Your task to perform on an android device: turn off sleep mode Image 0: 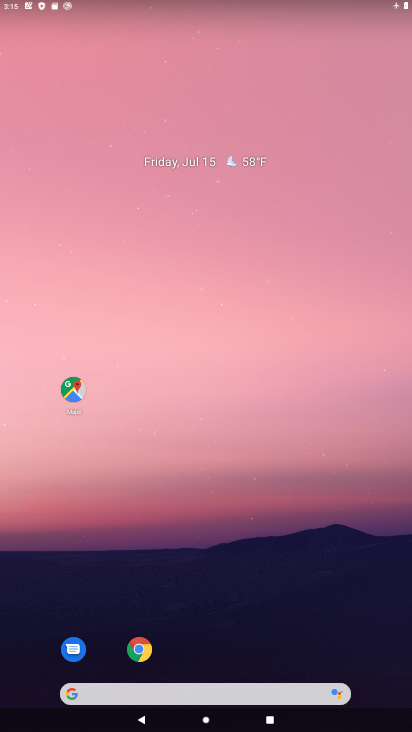
Step 0: drag from (237, 727) to (218, 124)
Your task to perform on an android device: turn off sleep mode Image 1: 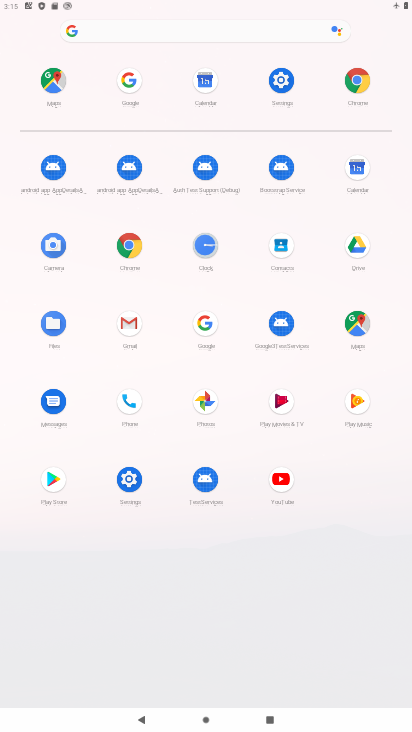
Step 1: click (282, 74)
Your task to perform on an android device: turn off sleep mode Image 2: 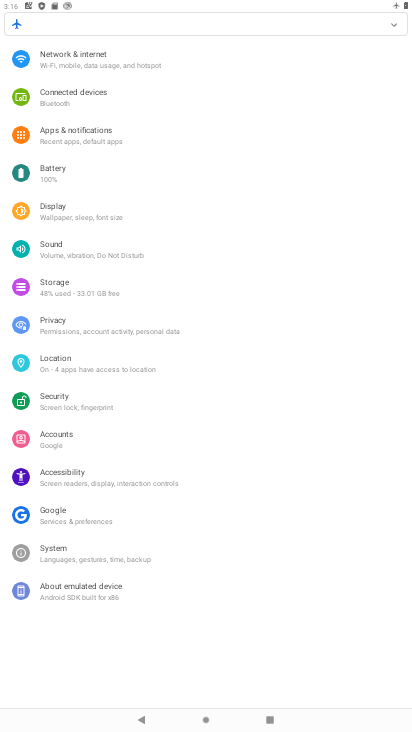
Step 2: click (82, 213)
Your task to perform on an android device: turn off sleep mode Image 3: 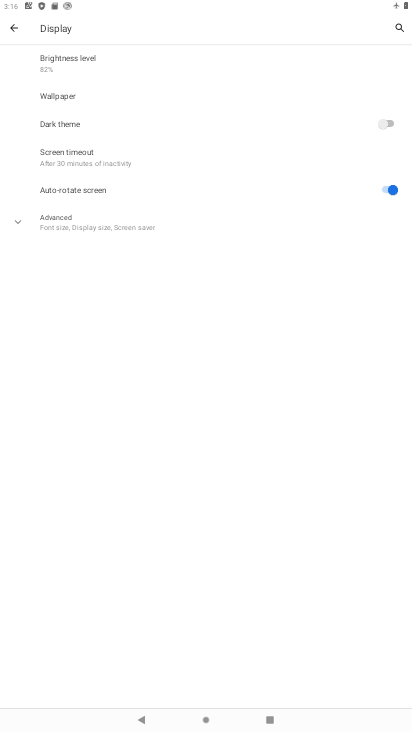
Step 3: click (11, 25)
Your task to perform on an android device: turn off sleep mode Image 4: 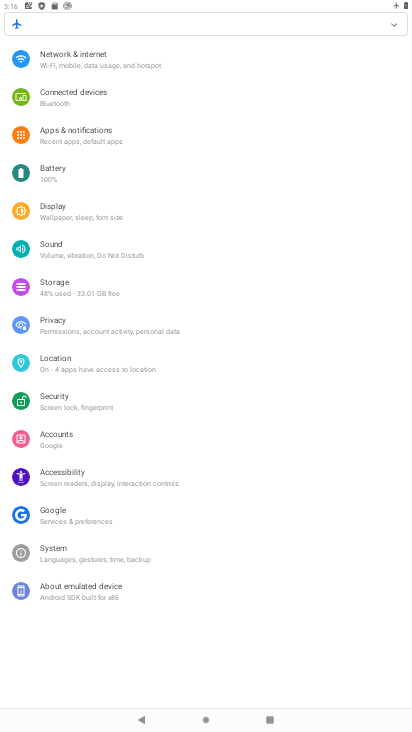
Step 4: task complete